Your task to perform on an android device: Open notification settings Image 0: 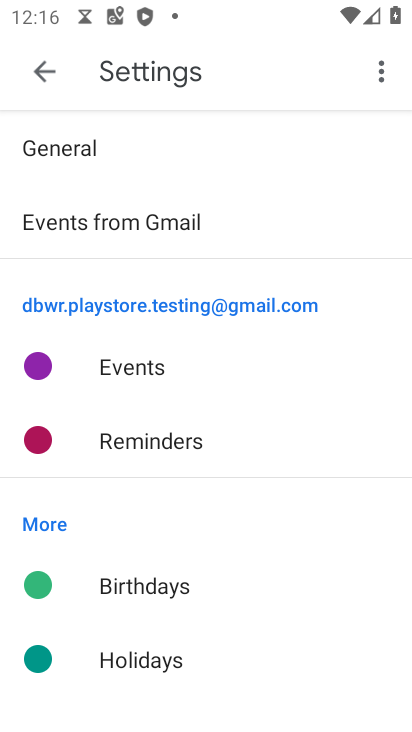
Step 0: press home button
Your task to perform on an android device: Open notification settings Image 1: 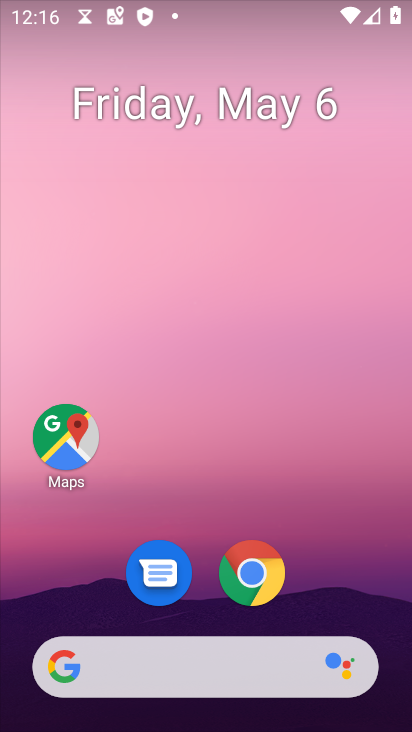
Step 1: drag from (344, 599) to (384, 188)
Your task to perform on an android device: Open notification settings Image 2: 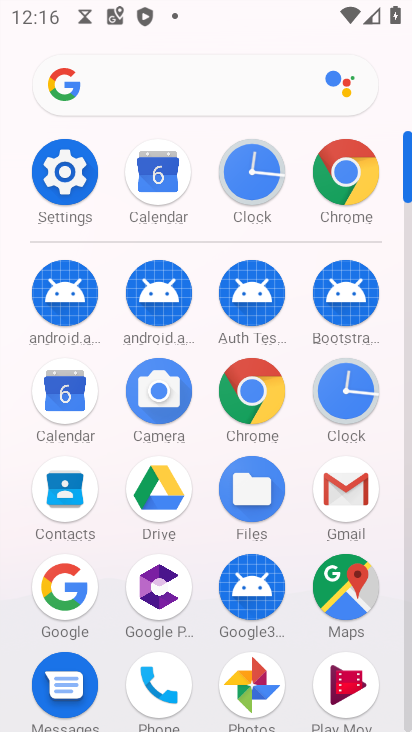
Step 2: click (63, 166)
Your task to perform on an android device: Open notification settings Image 3: 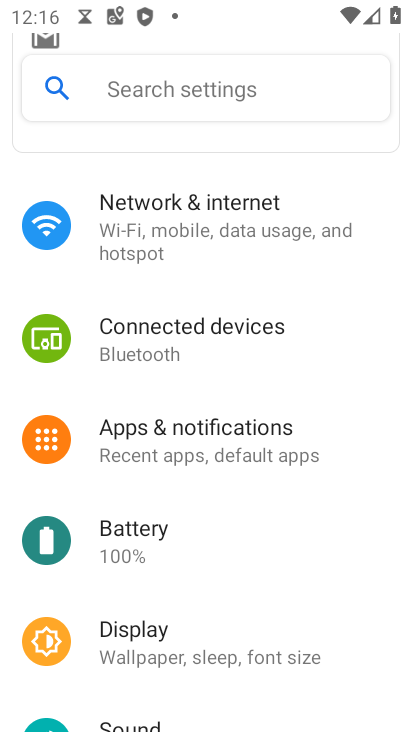
Step 3: click (219, 440)
Your task to perform on an android device: Open notification settings Image 4: 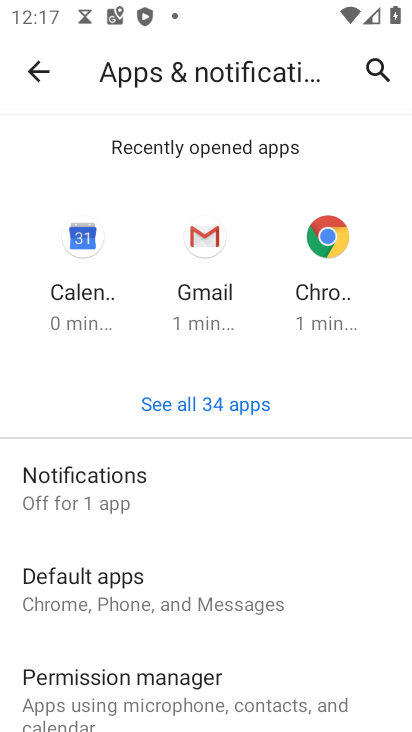
Step 4: task complete